Your task to perform on an android device: refresh tabs in the chrome app Image 0: 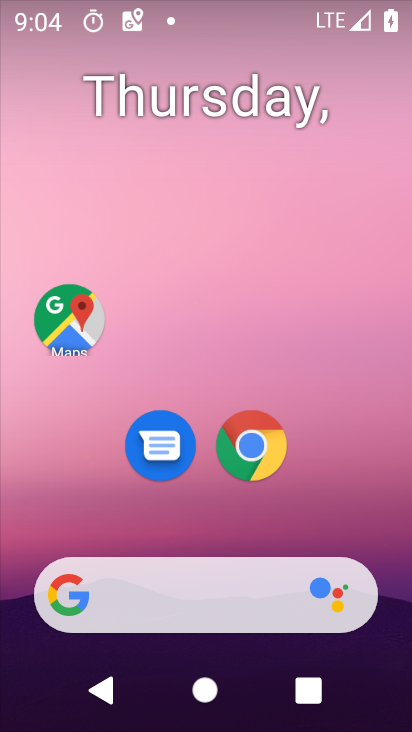
Step 0: click (255, 458)
Your task to perform on an android device: refresh tabs in the chrome app Image 1: 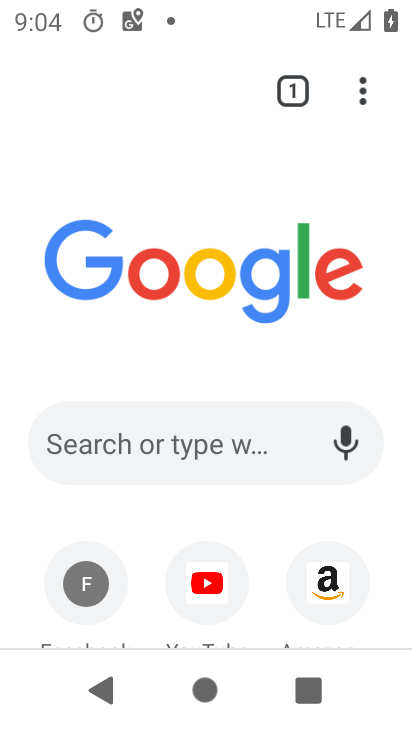
Step 1: click (357, 94)
Your task to perform on an android device: refresh tabs in the chrome app Image 2: 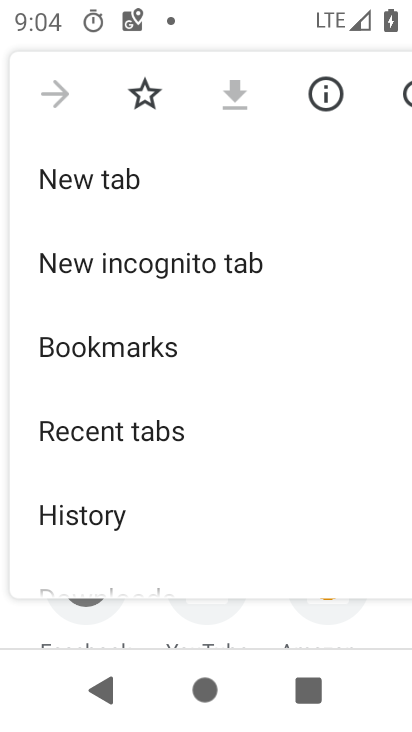
Step 2: click (404, 90)
Your task to perform on an android device: refresh tabs in the chrome app Image 3: 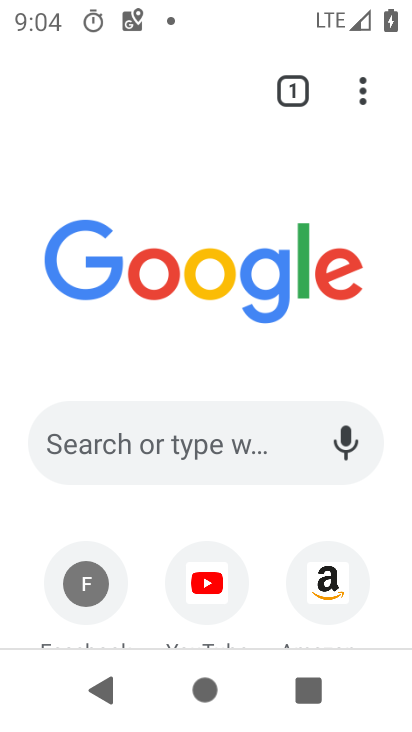
Step 3: task complete